Your task to perform on an android device: Open ESPN.com Image 0: 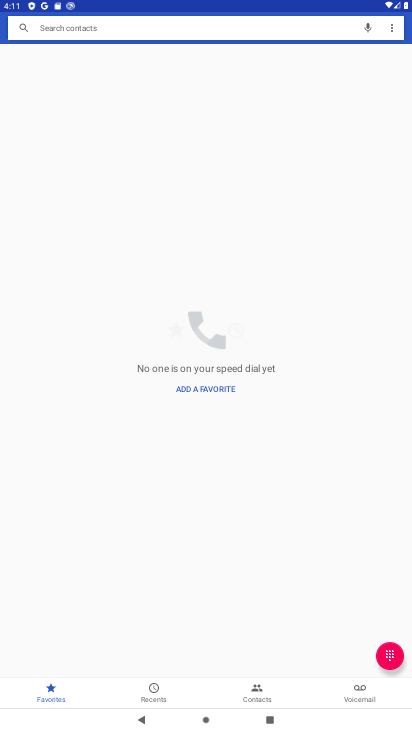
Step 0: press home button
Your task to perform on an android device: Open ESPN.com Image 1: 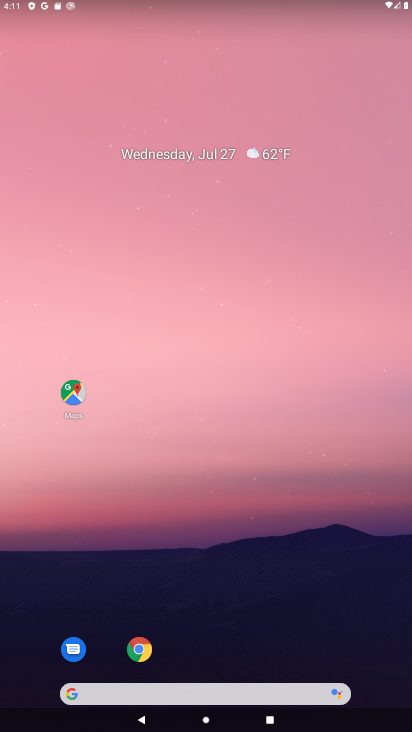
Step 1: click (144, 698)
Your task to perform on an android device: Open ESPN.com Image 2: 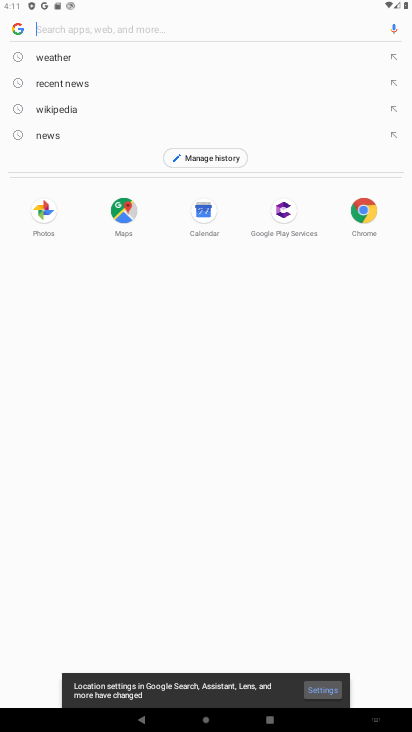
Step 2: type "ESPN.com"
Your task to perform on an android device: Open ESPN.com Image 3: 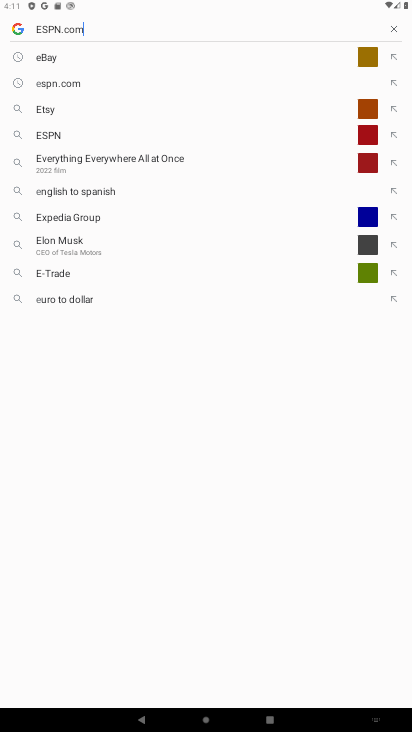
Step 3: type ""
Your task to perform on an android device: Open ESPN.com Image 4: 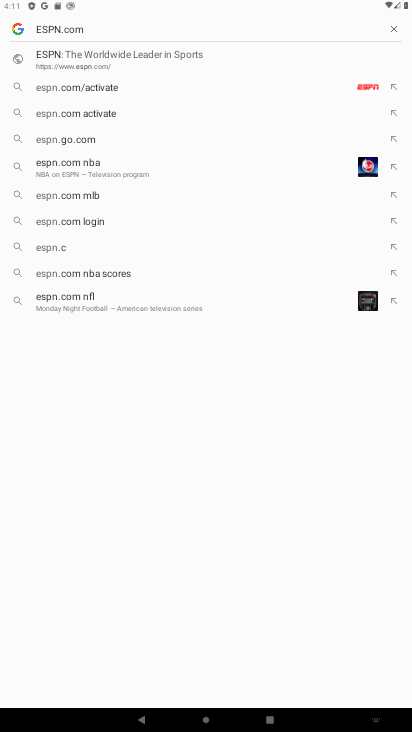
Step 4: press enter
Your task to perform on an android device: Open ESPN.com Image 5: 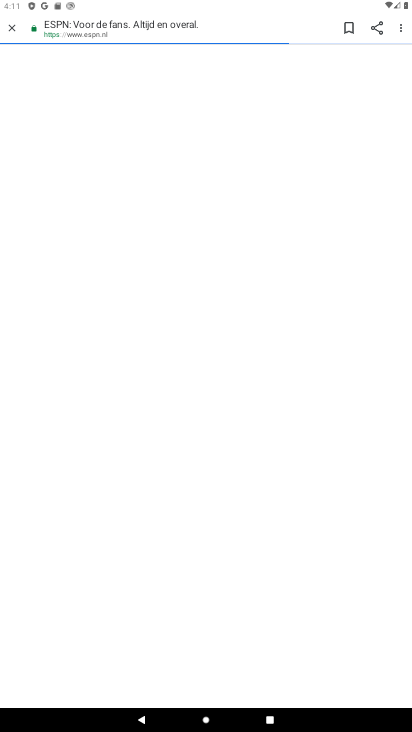
Step 5: task complete